Your task to perform on an android device: What's on my calendar tomorrow? Image 0: 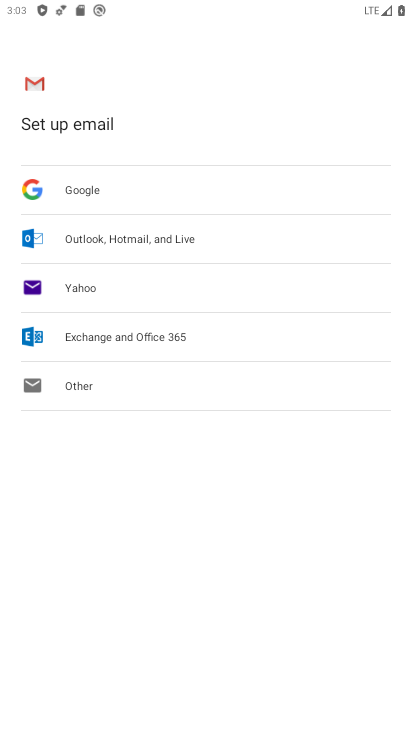
Step 0: press home button
Your task to perform on an android device: What's on my calendar tomorrow? Image 1: 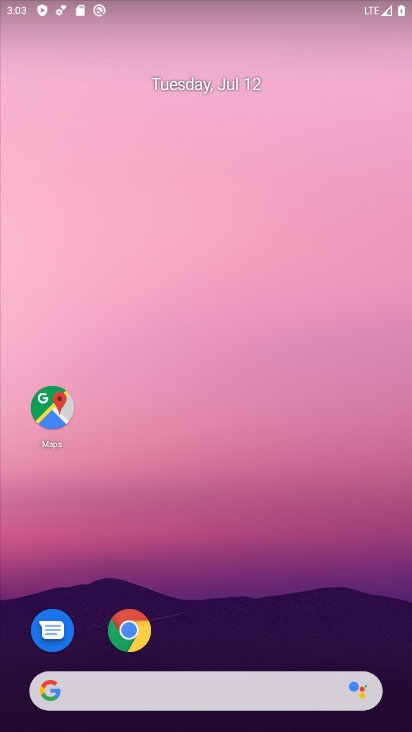
Step 1: drag from (246, 568) to (260, 6)
Your task to perform on an android device: What's on my calendar tomorrow? Image 2: 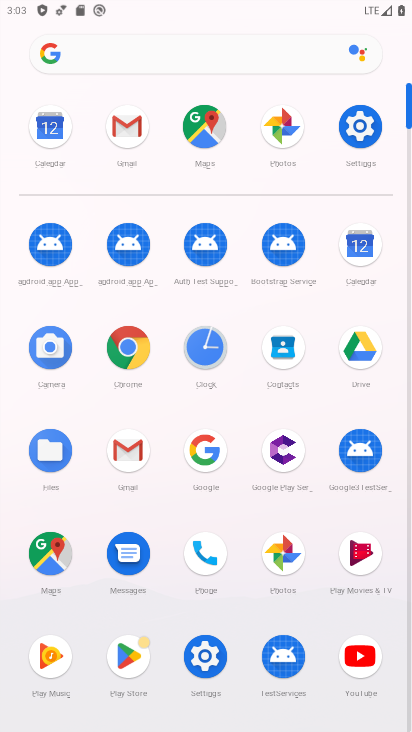
Step 2: click (364, 253)
Your task to perform on an android device: What's on my calendar tomorrow? Image 3: 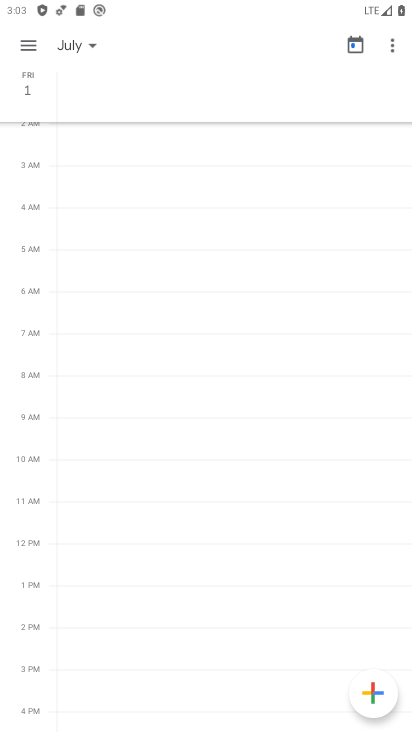
Step 3: click (364, 248)
Your task to perform on an android device: What's on my calendar tomorrow? Image 4: 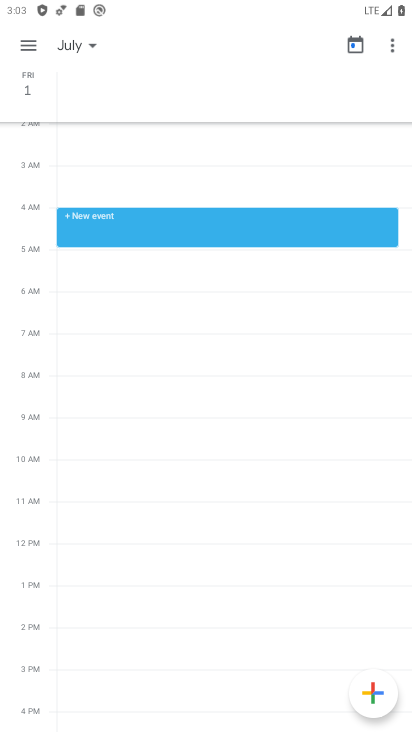
Step 4: click (80, 44)
Your task to perform on an android device: What's on my calendar tomorrow? Image 5: 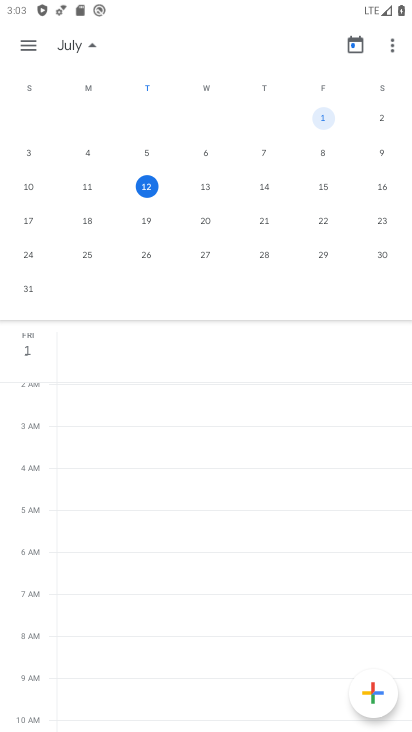
Step 5: click (145, 163)
Your task to perform on an android device: What's on my calendar tomorrow? Image 6: 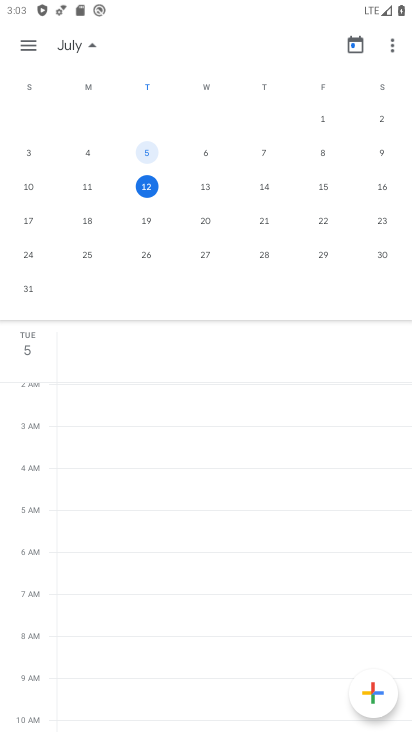
Step 6: click (151, 189)
Your task to perform on an android device: What's on my calendar tomorrow? Image 7: 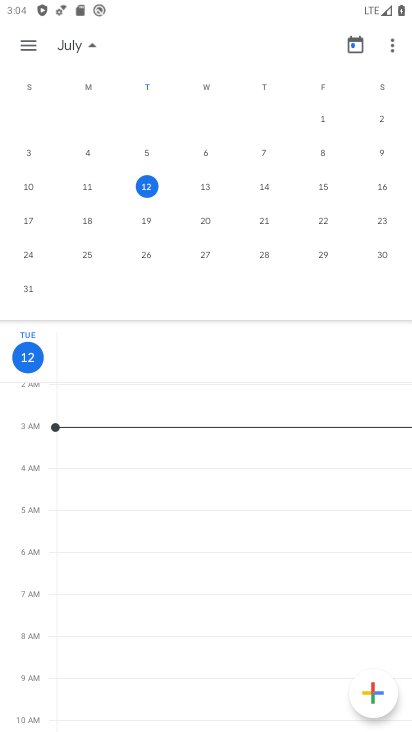
Step 7: click (28, 40)
Your task to perform on an android device: What's on my calendar tomorrow? Image 8: 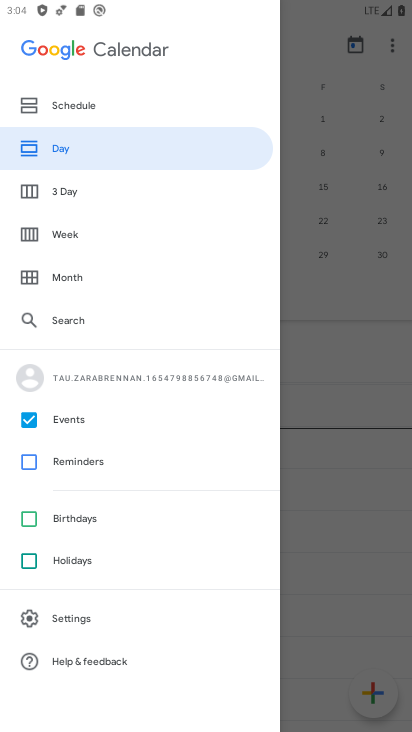
Step 8: click (57, 467)
Your task to perform on an android device: What's on my calendar tomorrow? Image 9: 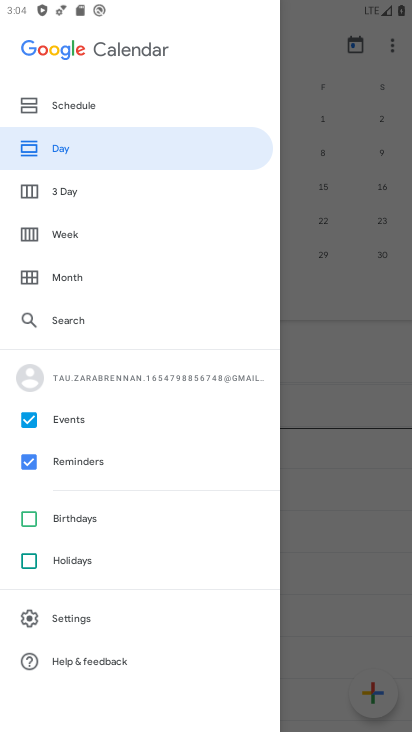
Step 9: click (63, 522)
Your task to perform on an android device: What's on my calendar tomorrow? Image 10: 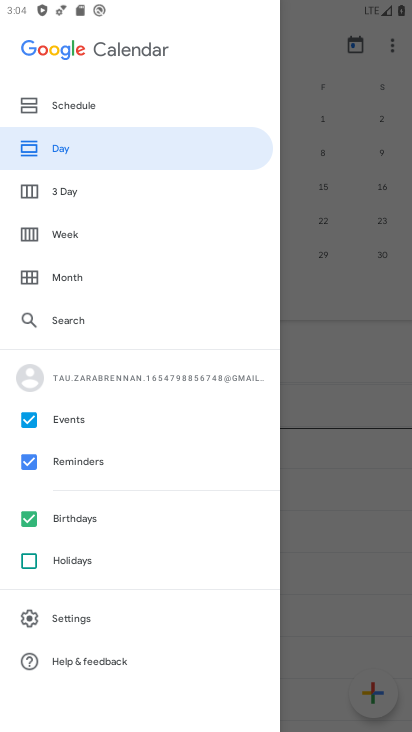
Step 10: click (62, 558)
Your task to perform on an android device: What's on my calendar tomorrow? Image 11: 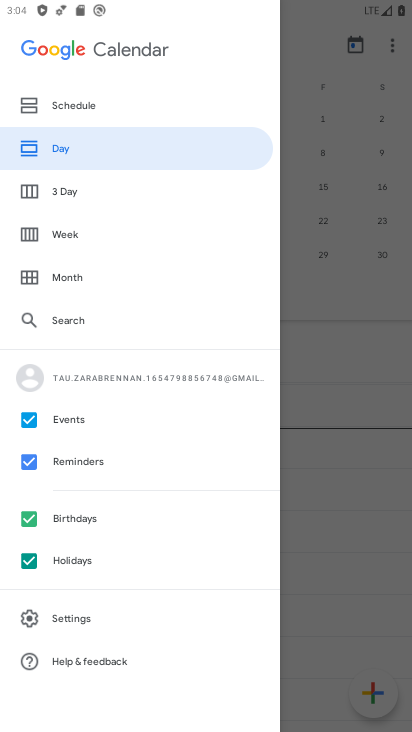
Step 11: click (88, 197)
Your task to perform on an android device: What's on my calendar tomorrow? Image 12: 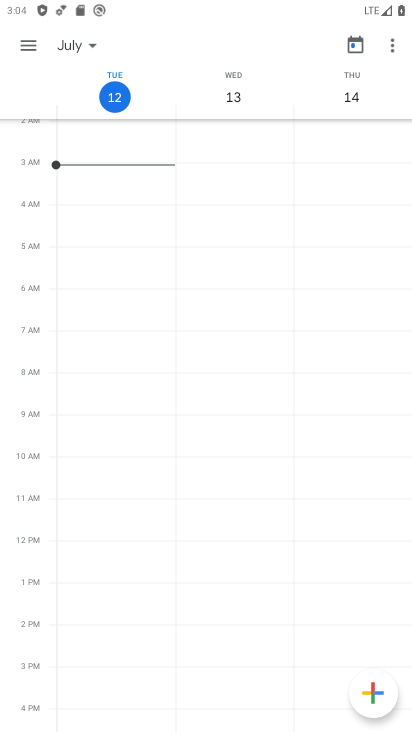
Step 12: task complete